Your task to perform on an android device: turn off wifi Image 0: 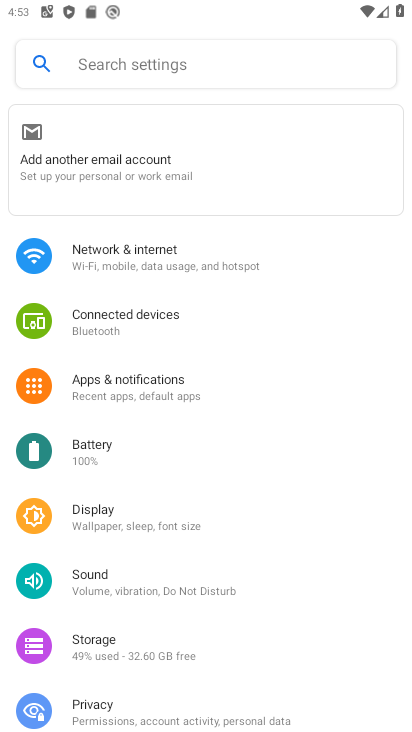
Step 0: press back button
Your task to perform on an android device: turn off wifi Image 1: 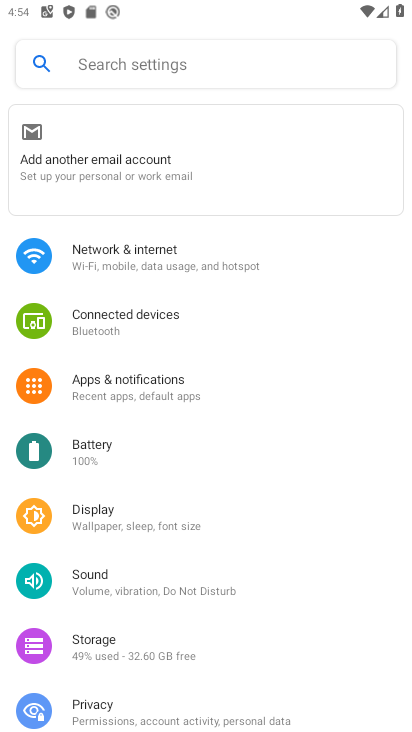
Step 1: drag from (137, 8) to (224, 640)
Your task to perform on an android device: turn off wifi Image 2: 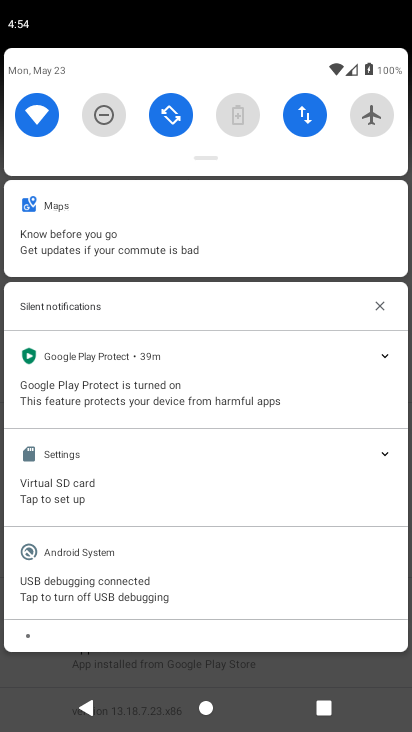
Step 2: click (43, 116)
Your task to perform on an android device: turn off wifi Image 3: 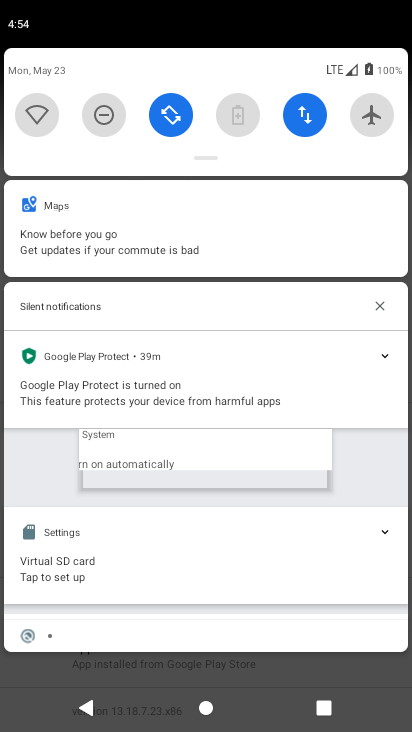
Step 3: task complete